Your task to perform on an android device: Go to battery settings Image 0: 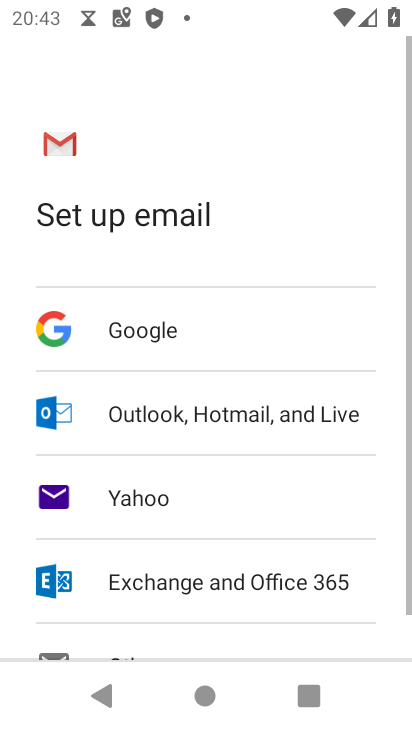
Step 0: press home button
Your task to perform on an android device: Go to battery settings Image 1: 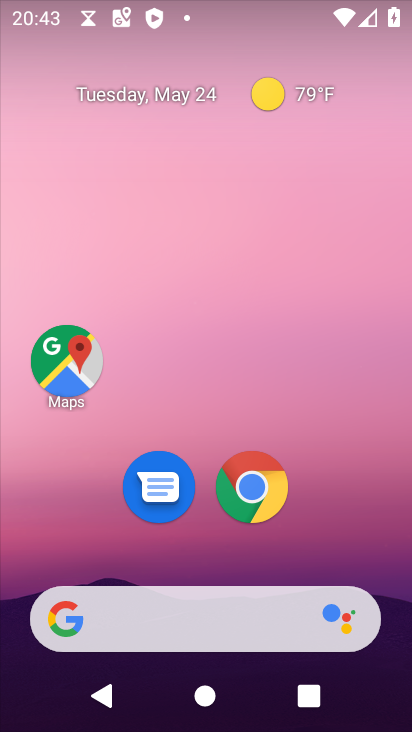
Step 1: drag from (24, 581) to (357, 136)
Your task to perform on an android device: Go to battery settings Image 2: 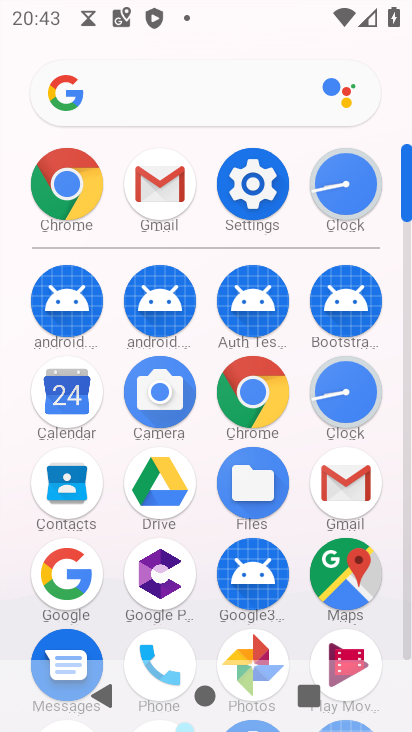
Step 2: click (279, 193)
Your task to perform on an android device: Go to battery settings Image 3: 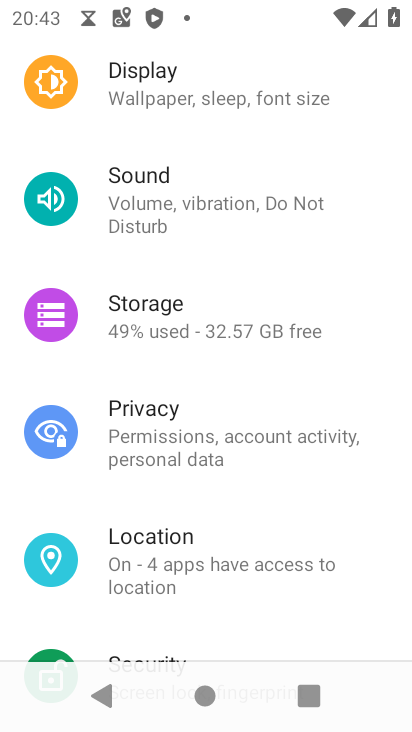
Step 3: drag from (145, 129) to (110, 663)
Your task to perform on an android device: Go to battery settings Image 4: 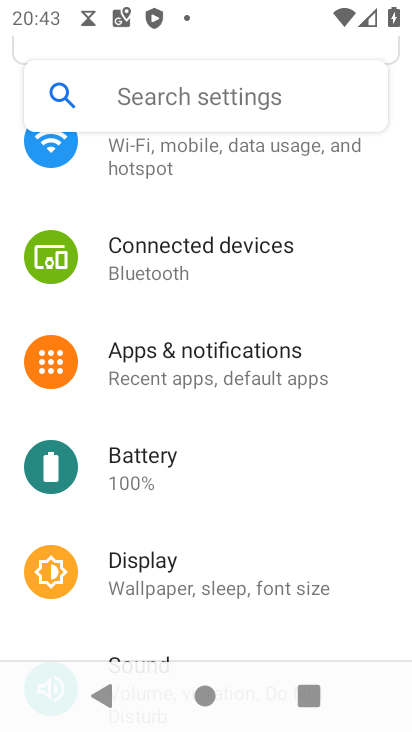
Step 4: click (150, 462)
Your task to perform on an android device: Go to battery settings Image 5: 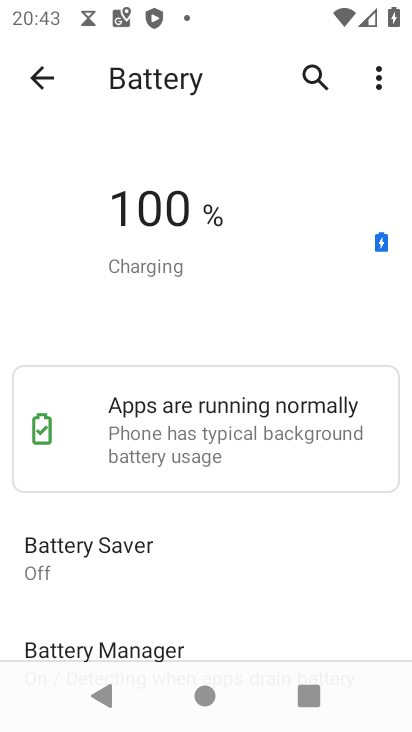
Step 5: task complete